Your task to perform on an android device: Open maps Image 0: 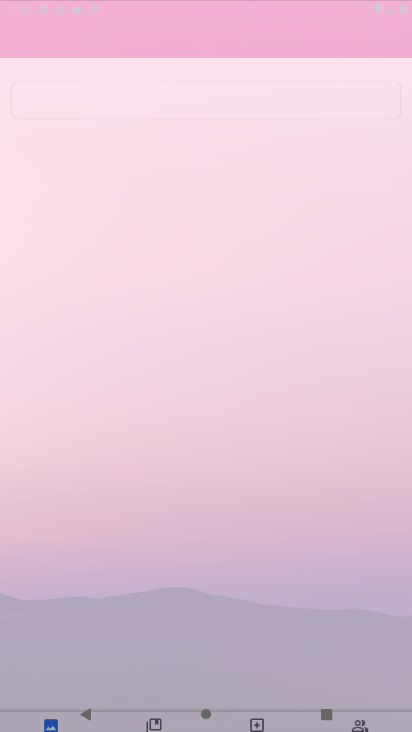
Step 0: drag from (317, 583) to (195, 56)
Your task to perform on an android device: Open maps Image 1: 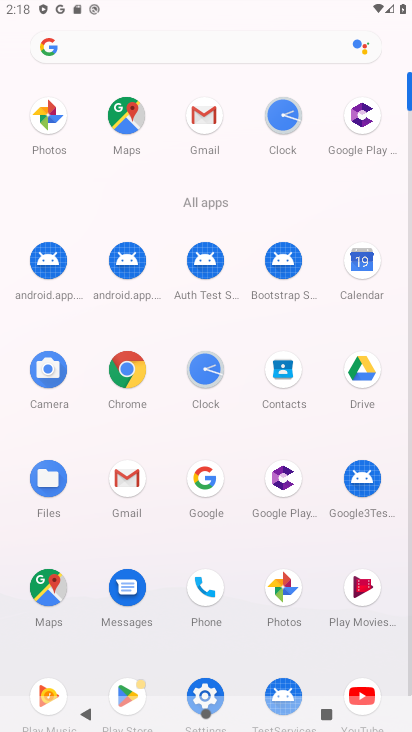
Step 1: click (133, 120)
Your task to perform on an android device: Open maps Image 2: 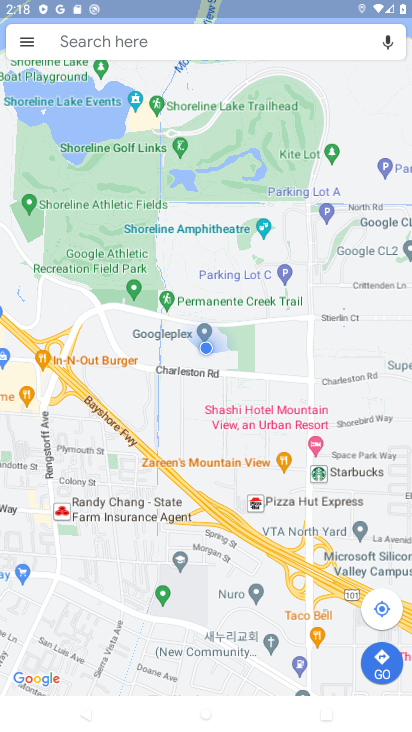
Step 2: task complete